Your task to perform on an android device: change the clock display to analog Image 0: 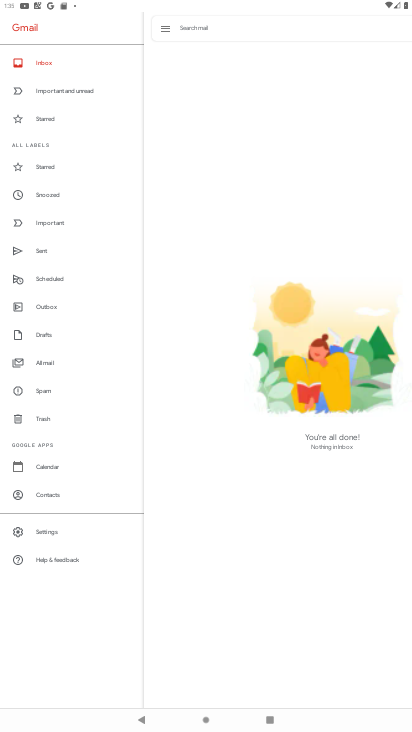
Step 0: press home button
Your task to perform on an android device: change the clock display to analog Image 1: 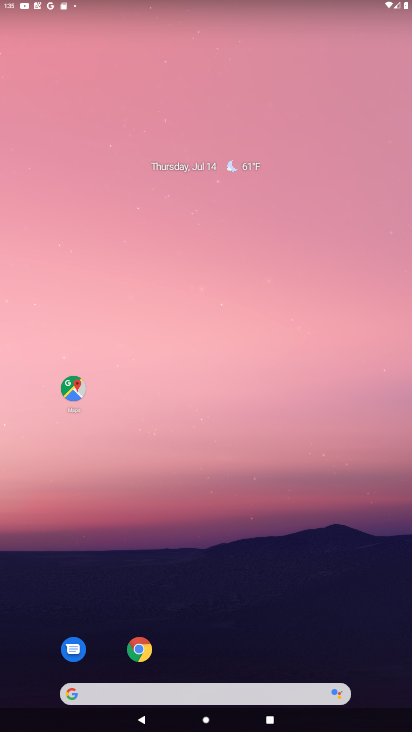
Step 1: drag from (218, 717) to (257, 83)
Your task to perform on an android device: change the clock display to analog Image 2: 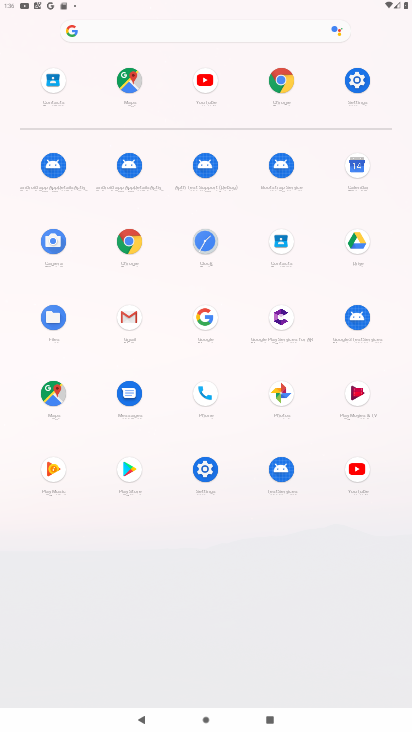
Step 2: click (213, 235)
Your task to perform on an android device: change the clock display to analog Image 3: 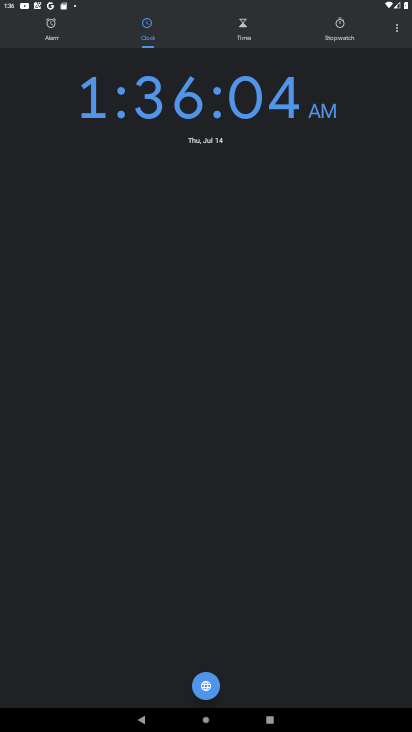
Step 3: click (401, 34)
Your task to perform on an android device: change the clock display to analog Image 4: 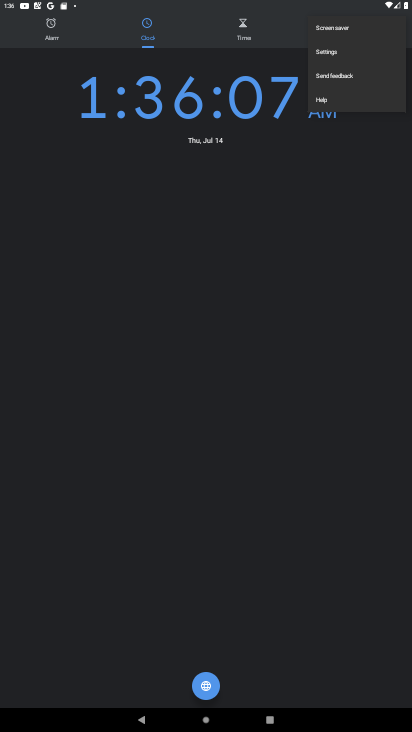
Step 4: click (329, 52)
Your task to perform on an android device: change the clock display to analog Image 5: 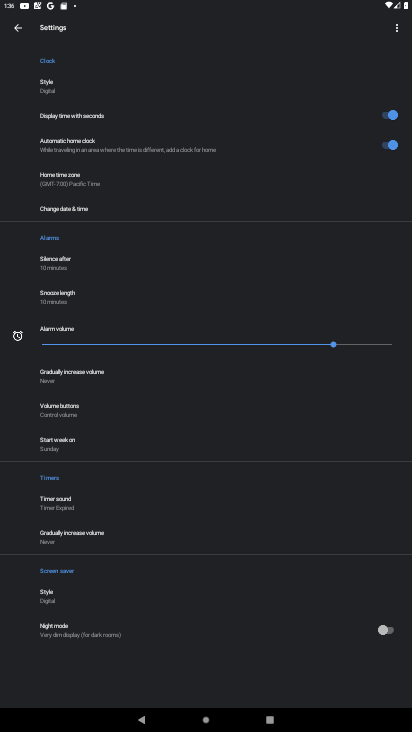
Step 5: click (76, 92)
Your task to perform on an android device: change the clock display to analog Image 6: 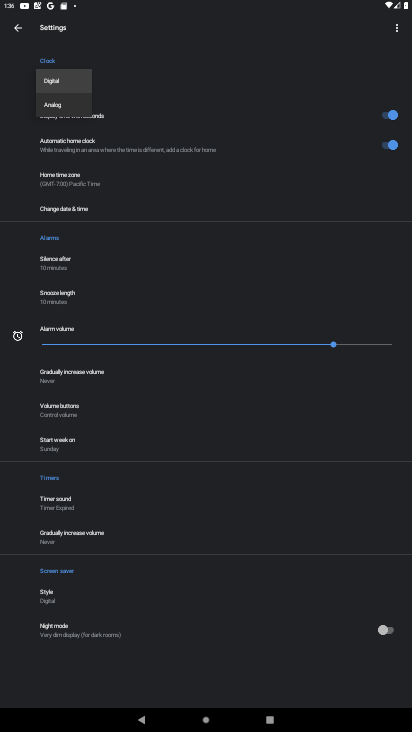
Step 6: click (53, 107)
Your task to perform on an android device: change the clock display to analog Image 7: 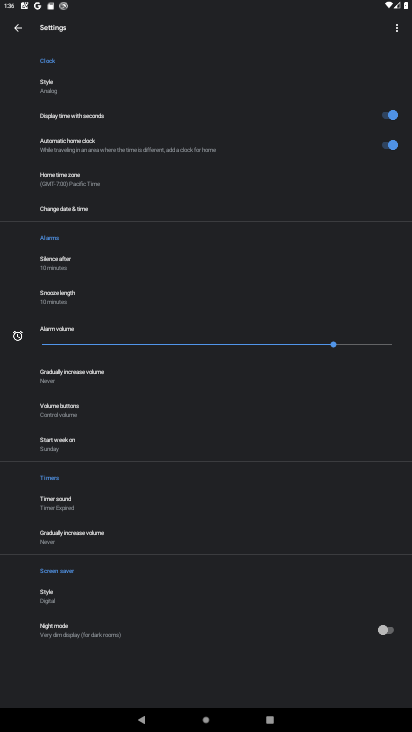
Step 7: task complete